Your task to perform on an android device: Open calendar and show me the second week of next month Image 0: 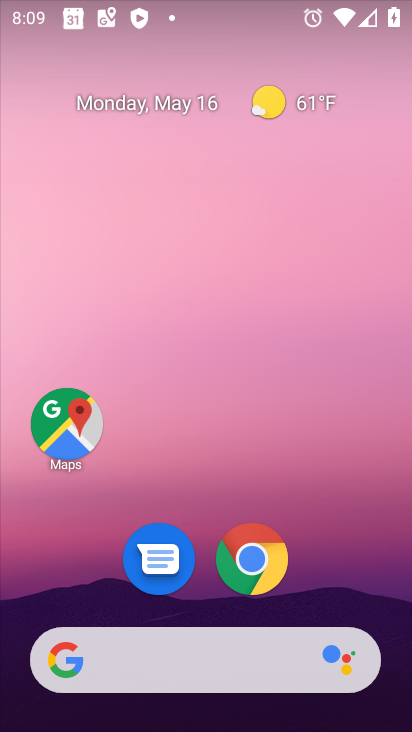
Step 0: drag from (382, 544) to (358, 124)
Your task to perform on an android device: Open calendar and show me the second week of next month Image 1: 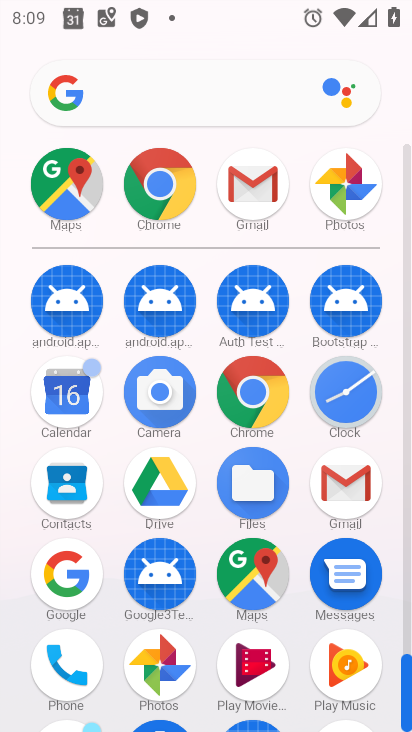
Step 1: click (70, 401)
Your task to perform on an android device: Open calendar and show me the second week of next month Image 2: 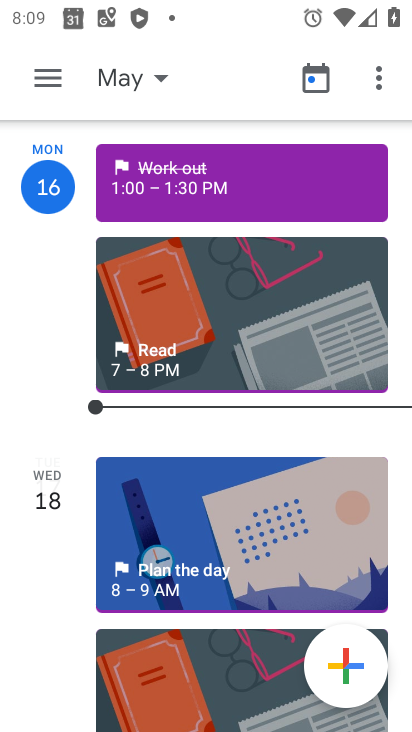
Step 2: click (139, 70)
Your task to perform on an android device: Open calendar and show me the second week of next month Image 3: 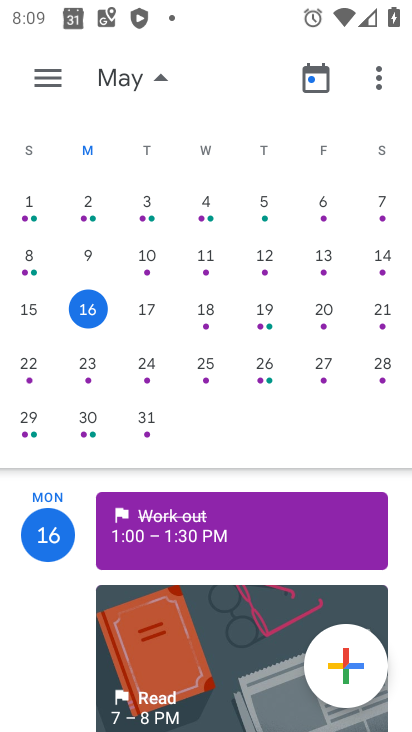
Step 3: drag from (349, 174) to (17, 170)
Your task to perform on an android device: Open calendar and show me the second week of next month Image 4: 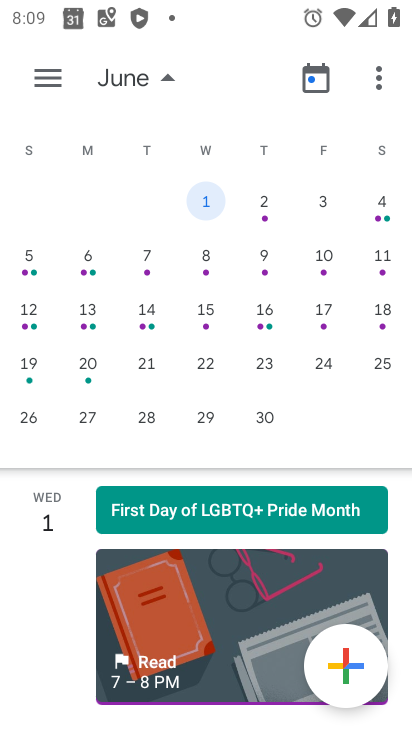
Step 4: click (17, 257)
Your task to perform on an android device: Open calendar and show me the second week of next month Image 5: 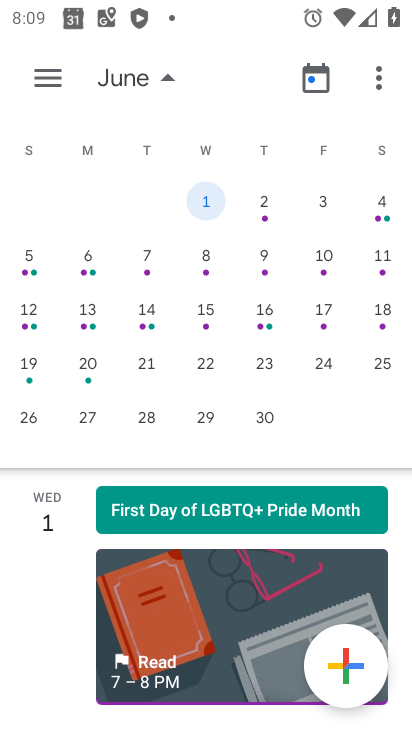
Step 5: click (30, 255)
Your task to perform on an android device: Open calendar and show me the second week of next month Image 6: 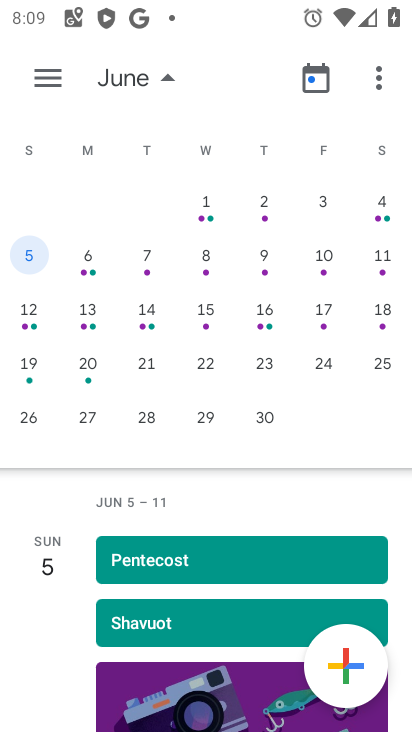
Step 6: task complete